Your task to perform on an android device: Go to Reddit.com Image 0: 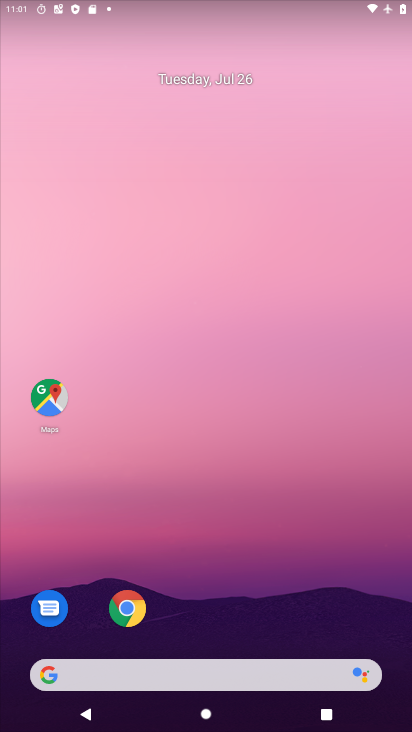
Step 0: click (120, 612)
Your task to perform on an android device: Go to Reddit.com Image 1: 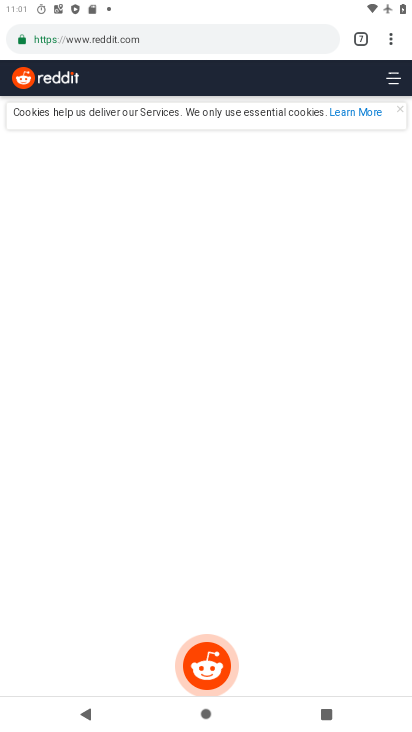
Step 1: task complete